Your task to perform on an android device: uninstall "File Manager" Image 0: 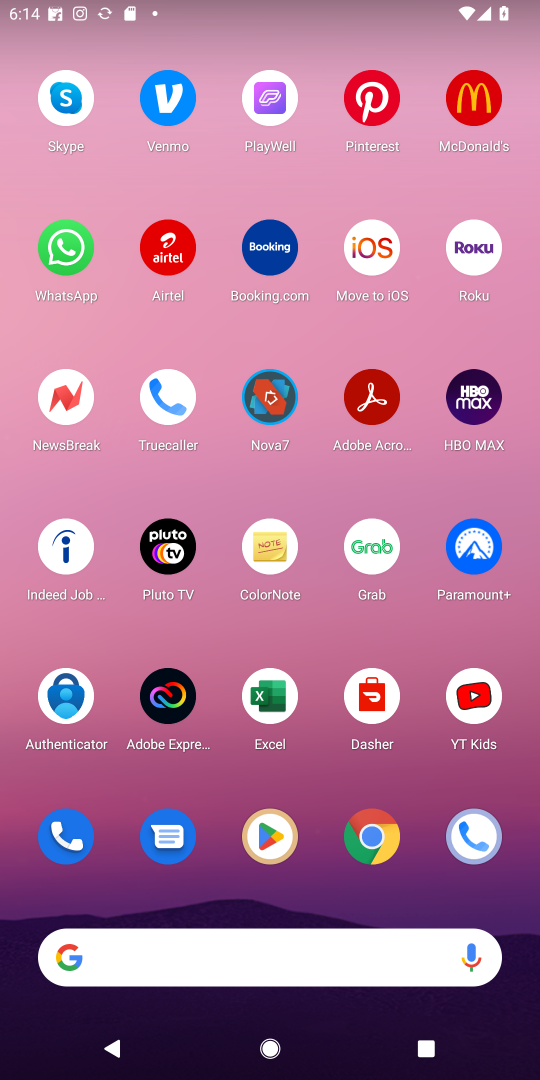
Step 0: click (273, 837)
Your task to perform on an android device: uninstall "File Manager" Image 1: 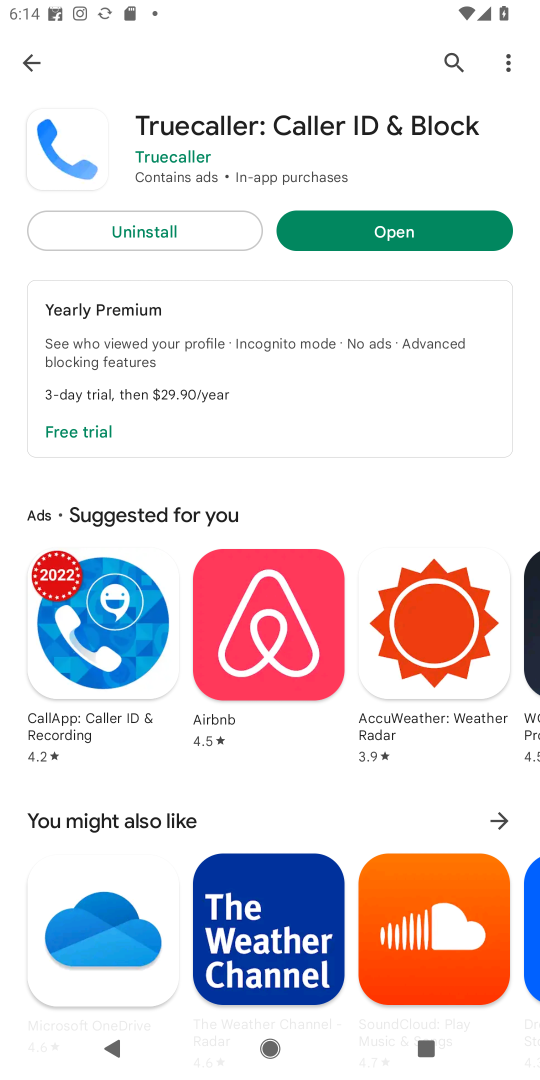
Step 1: click (452, 54)
Your task to perform on an android device: uninstall "File Manager" Image 2: 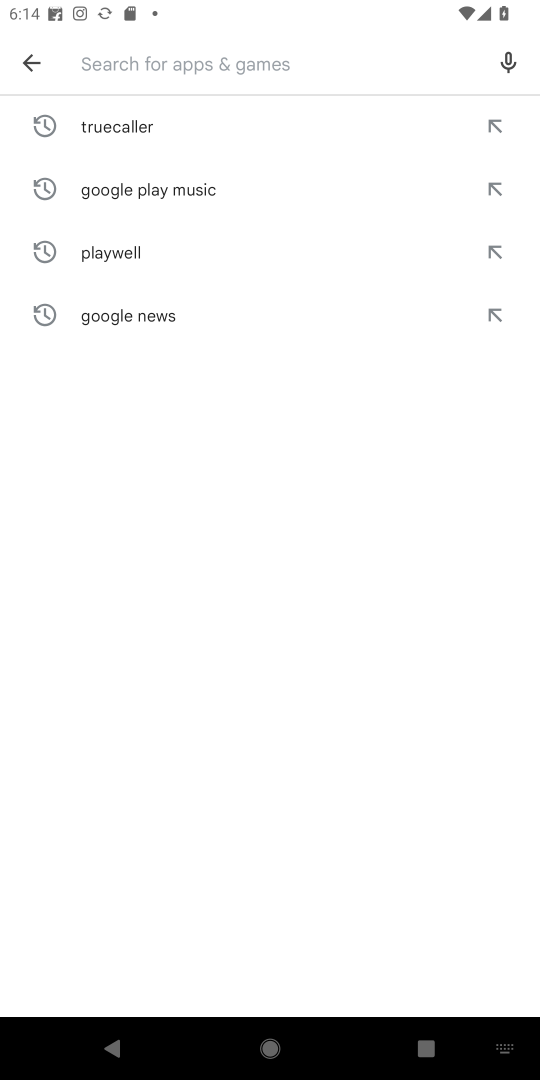
Step 2: type "File Manager"
Your task to perform on an android device: uninstall "File Manager" Image 3: 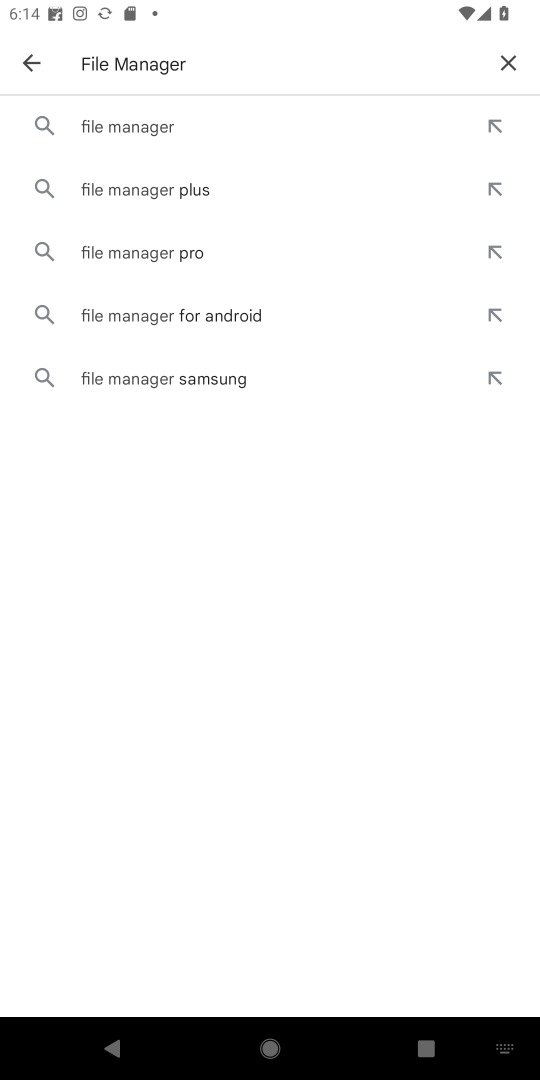
Step 3: click (105, 126)
Your task to perform on an android device: uninstall "File Manager" Image 4: 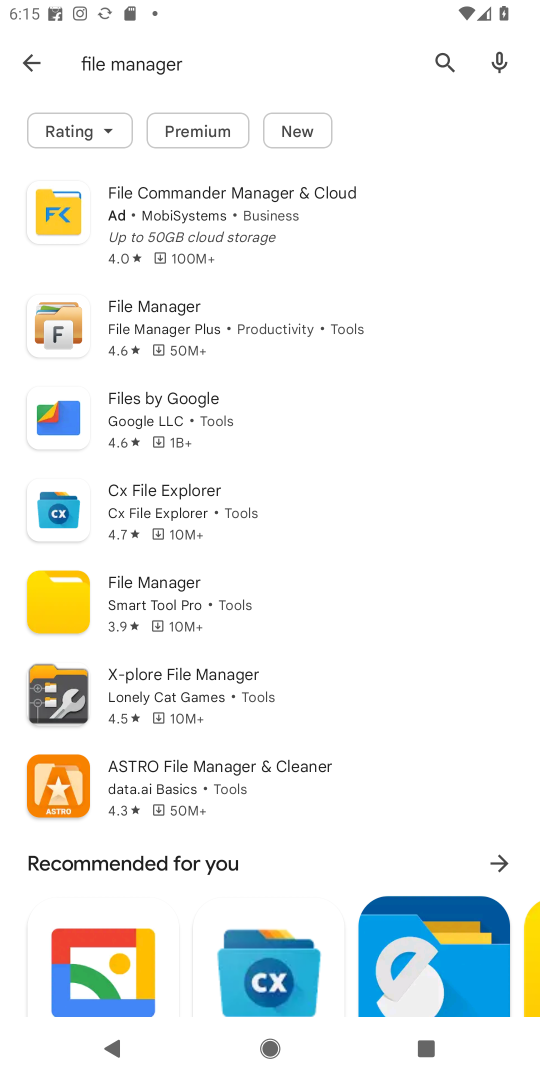
Step 4: task complete